Your task to perform on an android device: Search for Italian restaurants on Maps Image 0: 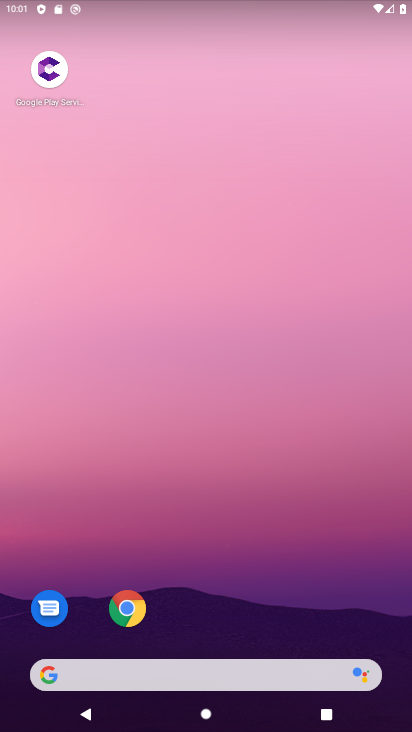
Step 0: drag from (194, 643) to (307, 47)
Your task to perform on an android device: Search for Italian restaurants on Maps Image 1: 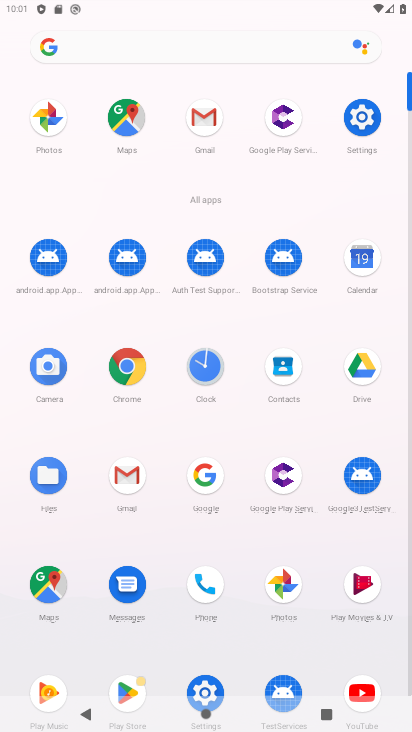
Step 1: click (49, 590)
Your task to perform on an android device: Search for Italian restaurants on Maps Image 2: 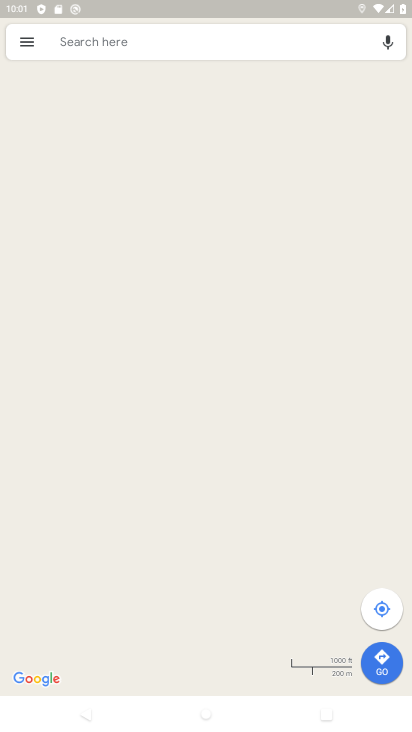
Step 2: click (151, 55)
Your task to perform on an android device: Search for Italian restaurants on Maps Image 3: 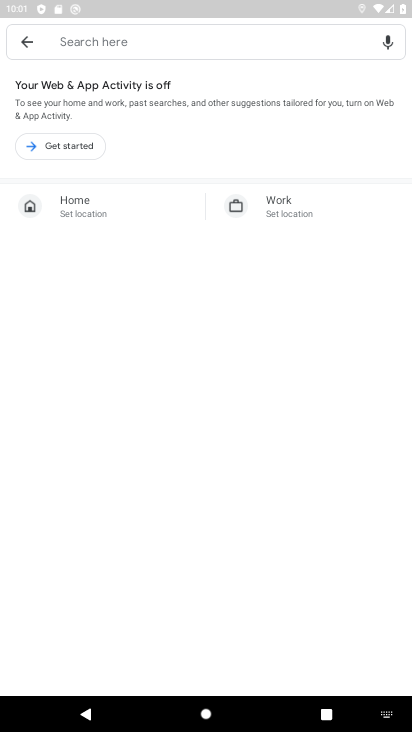
Step 3: click (64, 142)
Your task to perform on an android device: Search for Italian restaurants on Maps Image 4: 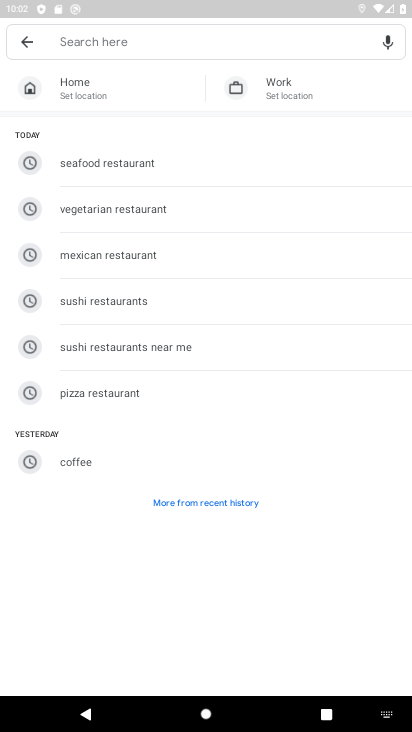
Step 4: type " Italian restaurants"
Your task to perform on an android device: Search for Italian restaurants on Maps Image 5: 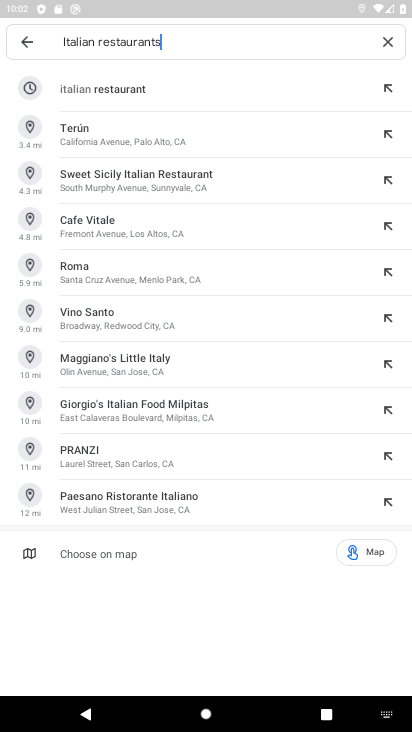
Step 5: click (135, 91)
Your task to perform on an android device: Search for Italian restaurants on Maps Image 6: 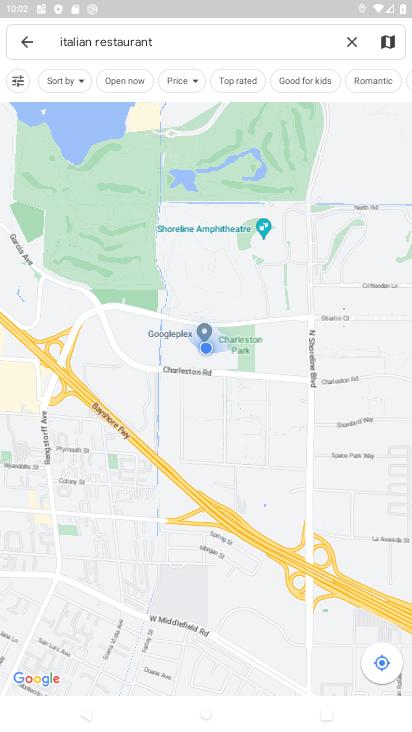
Step 6: task complete